Your task to perform on an android device: turn on bluetooth scan Image 0: 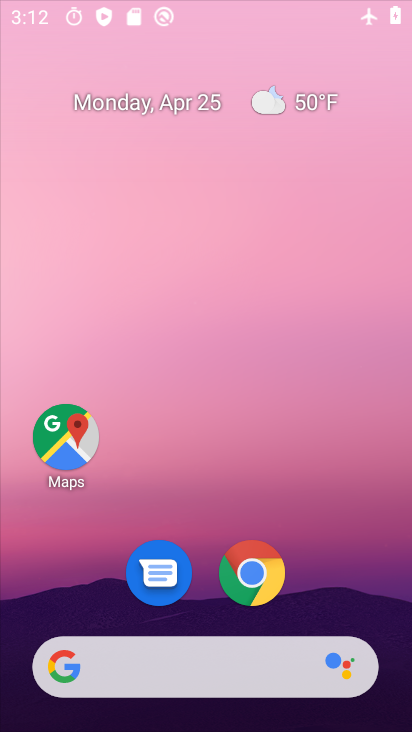
Step 0: click (394, 10)
Your task to perform on an android device: turn on bluetooth scan Image 1: 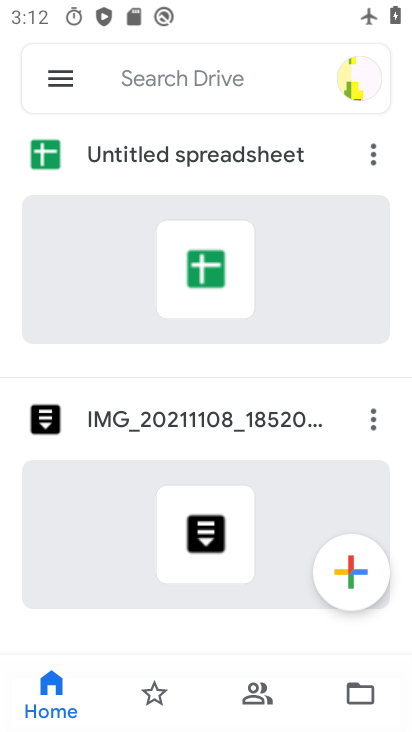
Step 1: press home button
Your task to perform on an android device: turn on bluetooth scan Image 2: 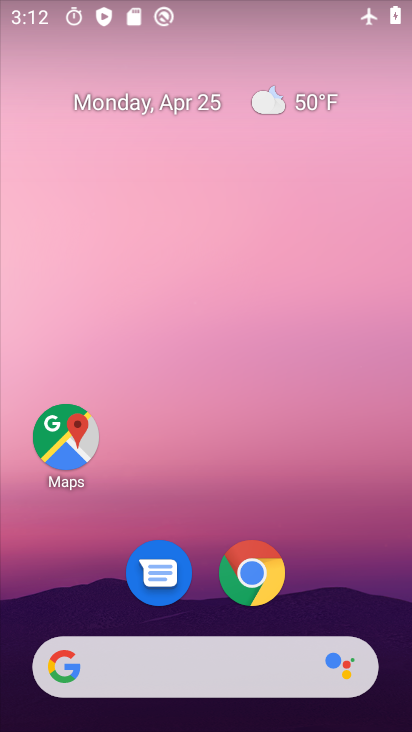
Step 2: drag from (349, 301) to (359, 1)
Your task to perform on an android device: turn on bluetooth scan Image 3: 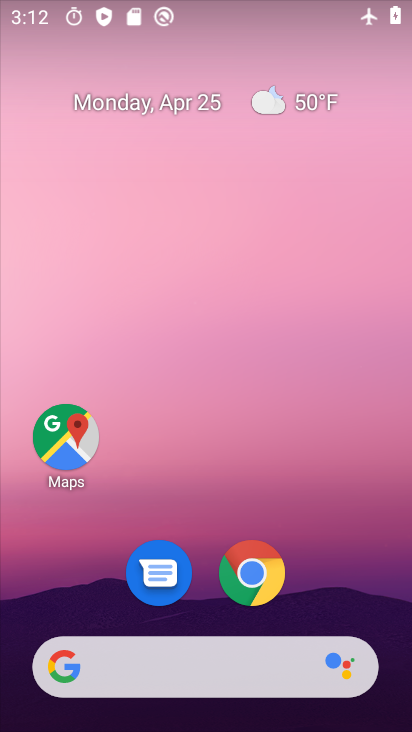
Step 3: drag from (378, 401) to (383, 105)
Your task to perform on an android device: turn on bluetooth scan Image 4: 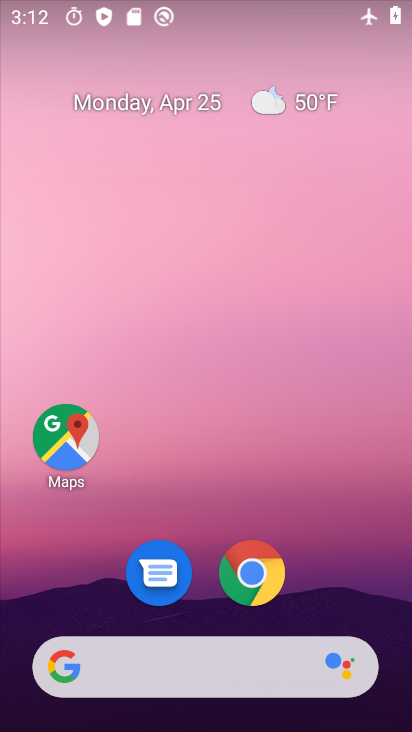
Step 4: drag from (373, 523) to (412, 62)
Your task to perform on an android device: turn on bluetooth scan Image 5: 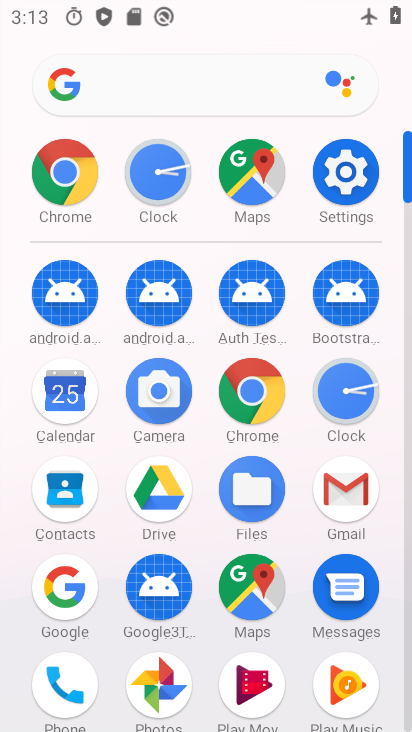
Step 5: click (358, 175)
Your task to perform on an android device: turn on bluetooth scan Image 6: 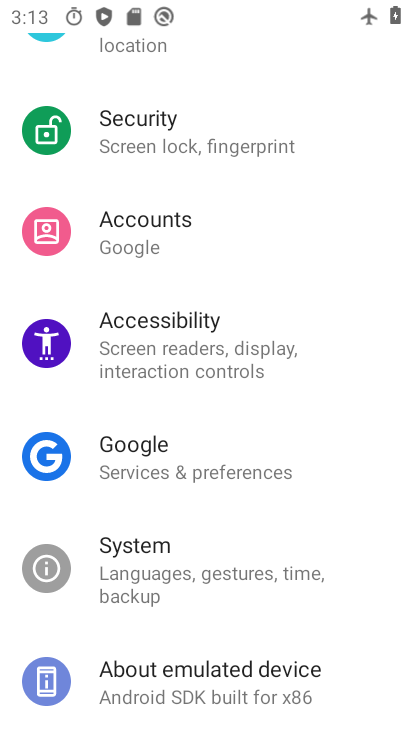
Step 6: drag from (252, 614) to (295, 64)
Your task to perform on an android device: turn on bluetooth scan Image 7: 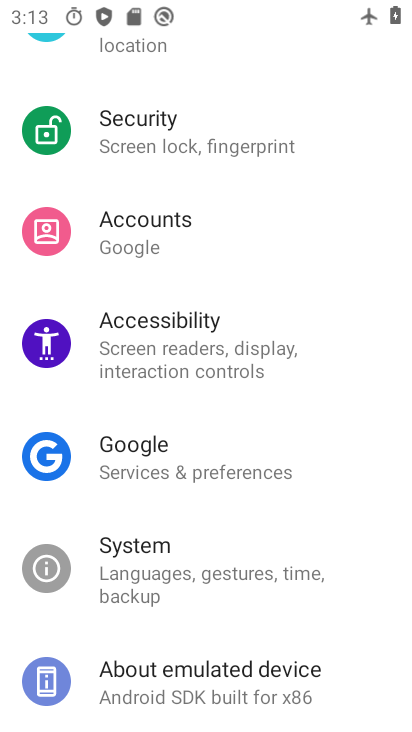
Step 7: drag from (271, 103) to (291, 579)
Your task to perform on an android device: turn on bluetooth scan Image 8: 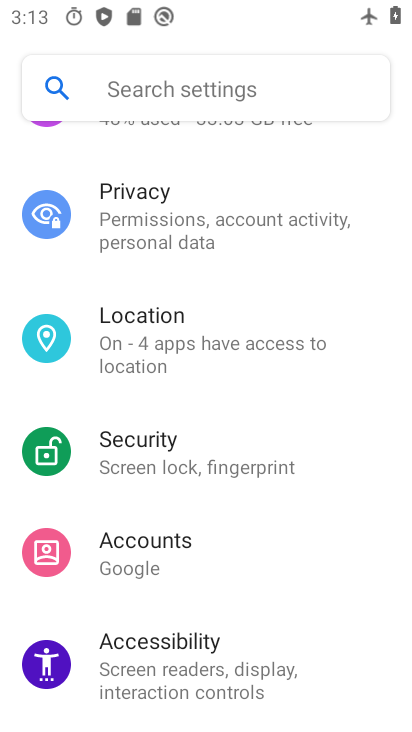
Step 8: click (127, 321)
Your task to perform on an android device: turn on bluetooth scan Image 9: 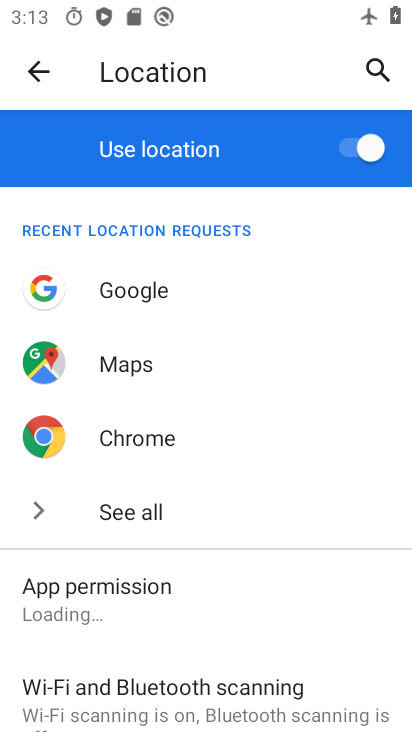
Step 9: drag from (225, 641) to (248, 128)
Your task to perform on an android device: turn on bluetooth scan Image 10: 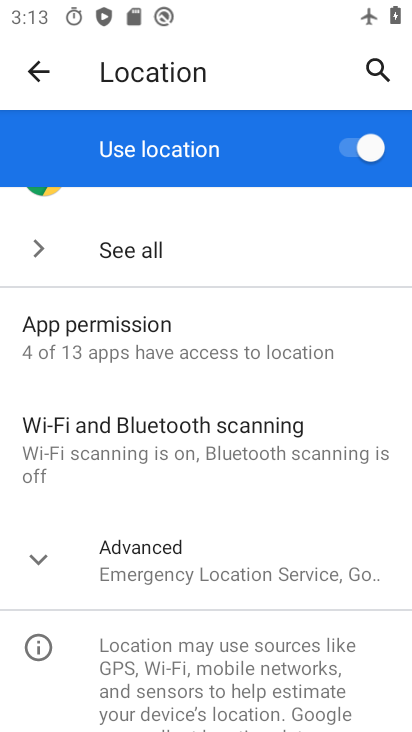
Step 10: drag from (233, 602) to (258, 216)
Your task to perform on an android device: turn on bluetooth scan Image 11: 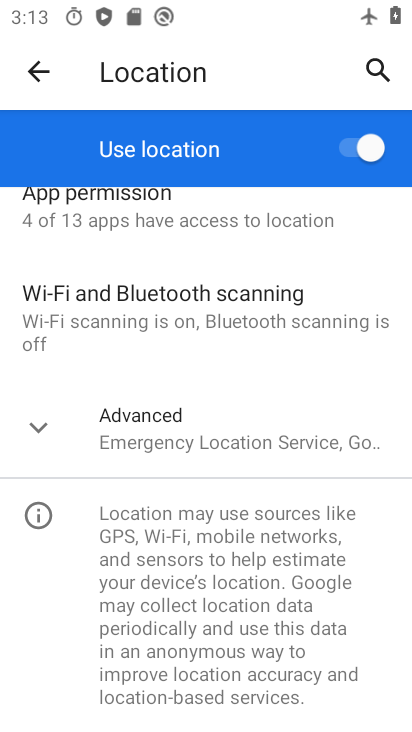
Step 11: click (173, 305)
Your task to perform on an android device: turn on bluetooth scan Image 12: 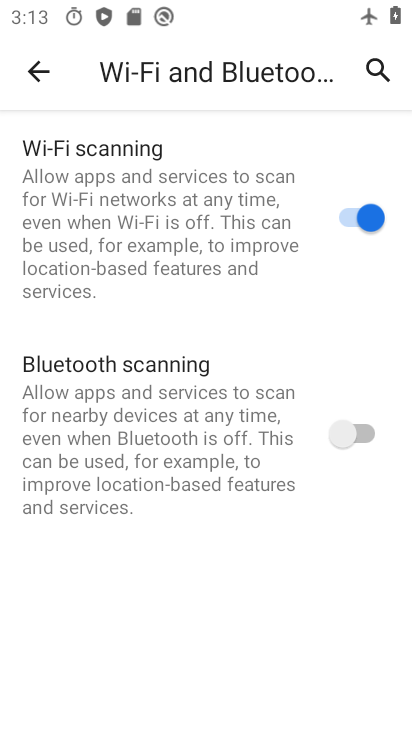
Step 12: click (356, 432)
Your task to perform on an android device: turn on bluetooth scan Image 13: 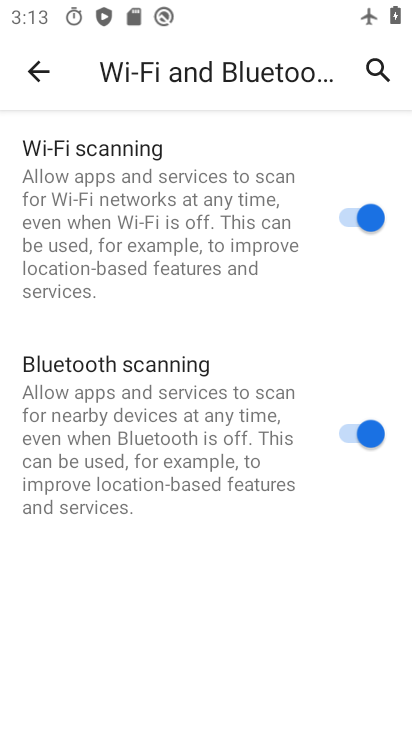
Step 13: task complete